Your task to perform on an android device: star an email in the gmail app Image 0: 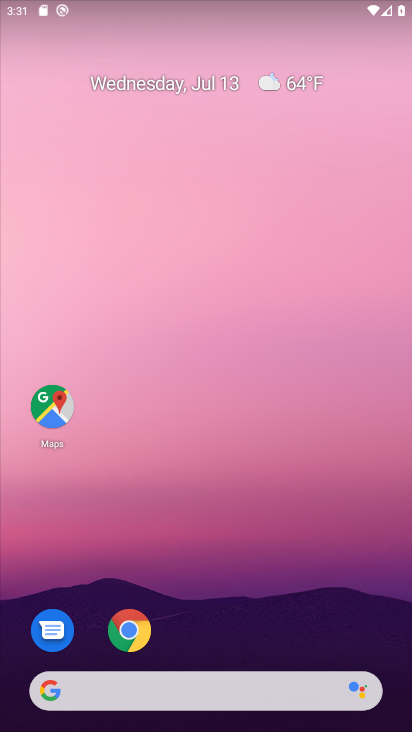
Step 0: drag from (165, 641) to (115, 135)
Your task to perform on an android device: star an email in the gmail app Image 1: 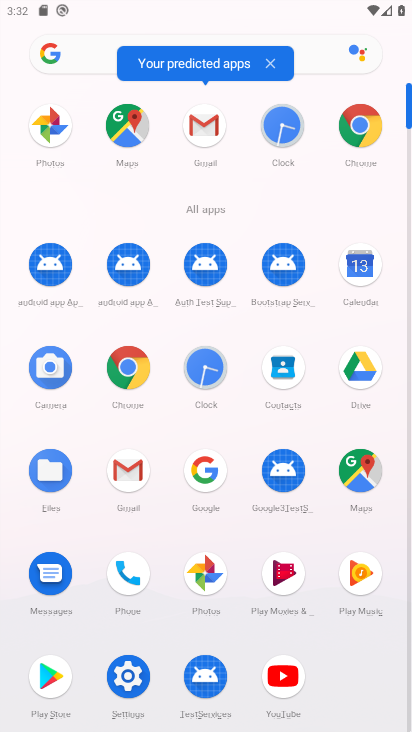
Step 1: click (198, 126)
Your task to perform on an android device: star an email in the gmail app Image 2: 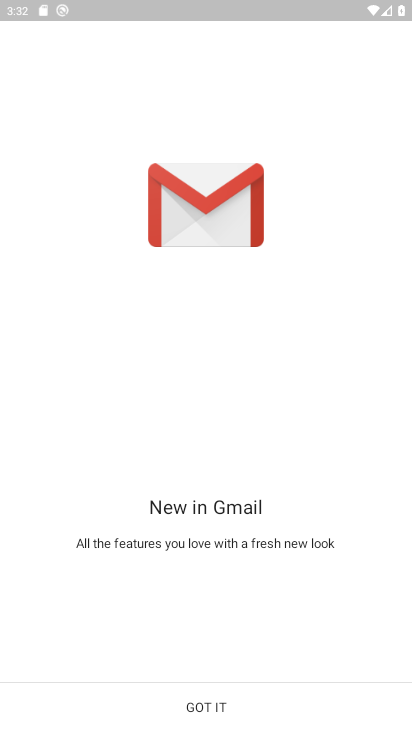
Step 2: click (199, 715)
Your task to perform on an android device: star an email in the gmail app Image 3: 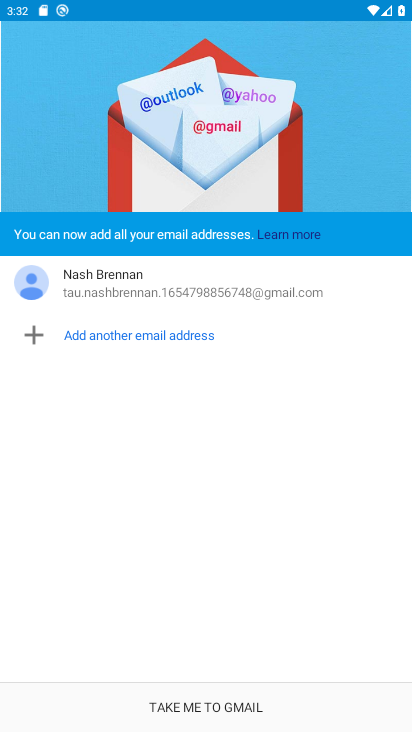
Step 3: click (199, 715)
Your task to perform on an android device: star an email in the gmail app Image 4: 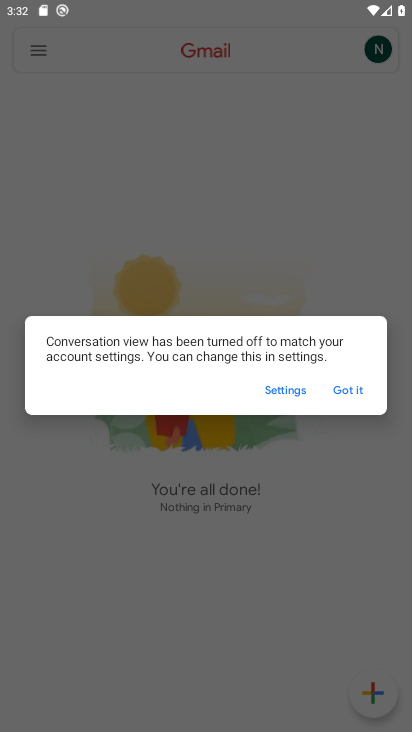
Step 4: click (354, 396)
Your task to perform on an android device: star an email in the gmail app Image 5: 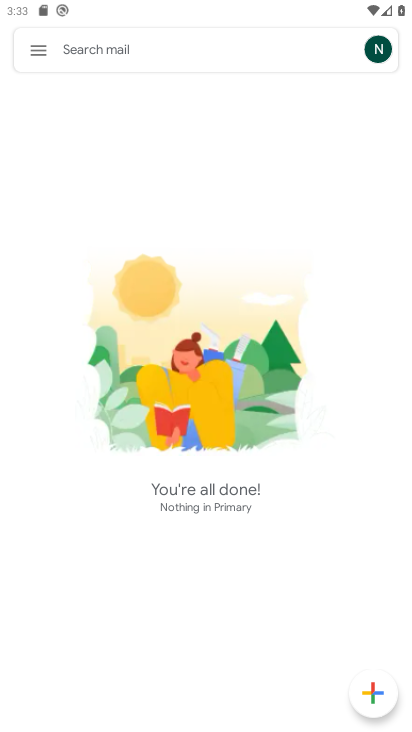
Step 5: task complete